Your task to perform on an android device: change timer sound Image 0: 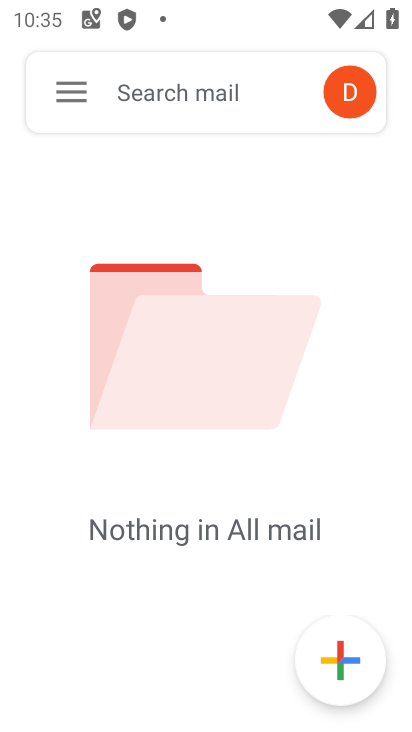
Step 0: press home button
Your task to perform on an android device: change timer sound Image 1: 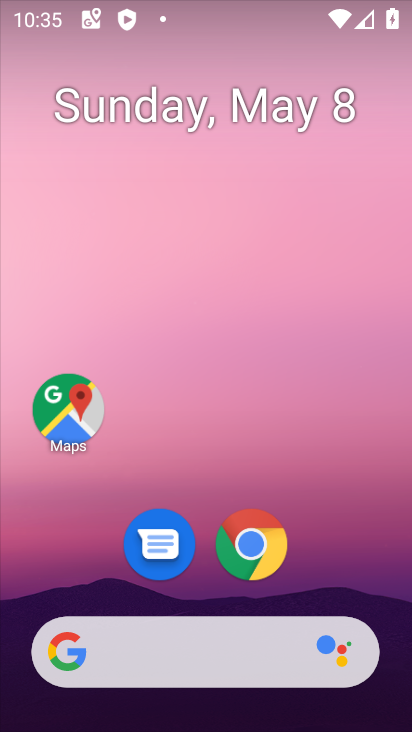
Step 1: drag from (355, 554) to (269, 35)
Your task to perform on an android device: change timer sound Image 2: 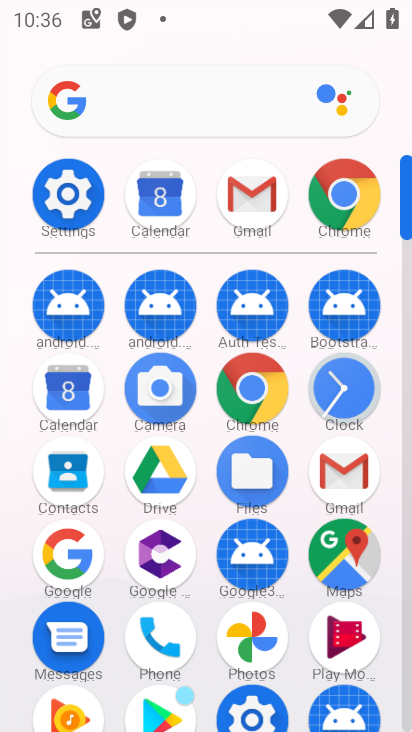
Step 2: click (356, 394)
Your task to perform on an android device: change timer sound Image 3: 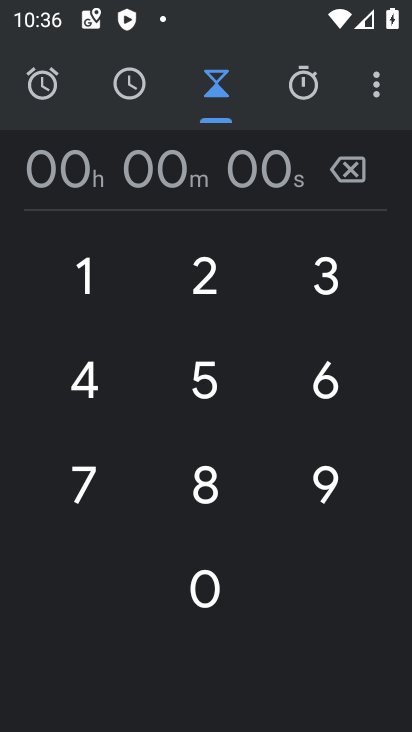
Step 3: click (385, 90)
Your task to perform on an android device: change timer sound Image 4: 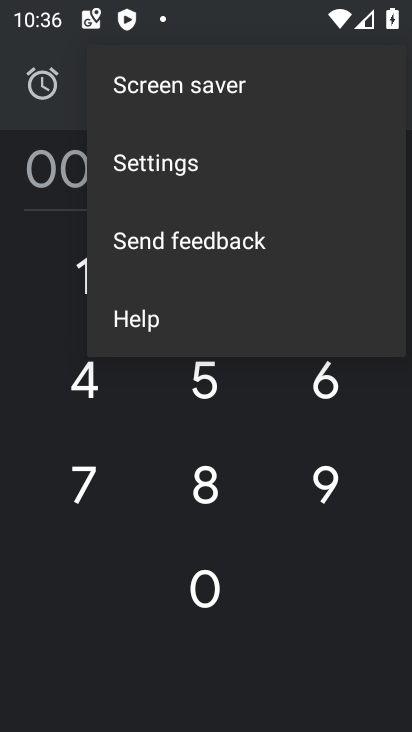
Step 4: click (288, 156)
Your task to perform on an android device: change timer sound Image 5: 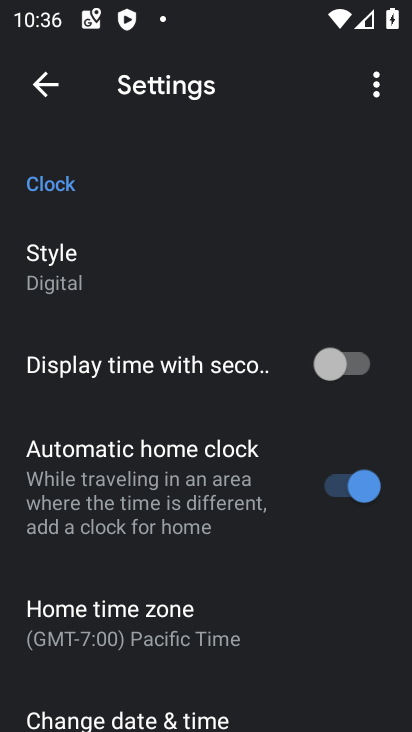
Step 5: drag from (119, 584) to (196, 142)
Your task to perform on an android device: change timer sound Image 6: 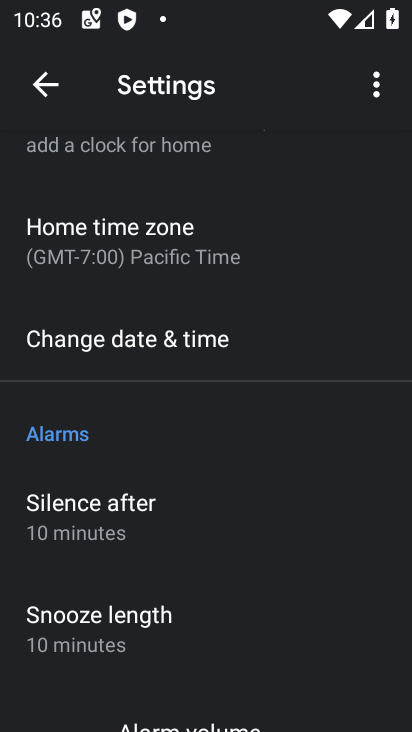
Step 6: drag from (82, 581) to (108, 375)
Your task to perform on an android device: change timer sound Image 7: 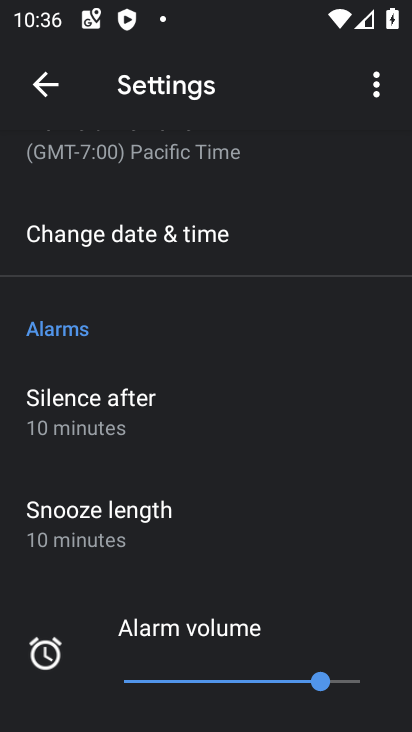
Step 7: drag from (90, 539) to (106, 320)
Your task to perform on an android device: change timer sound Image 8: 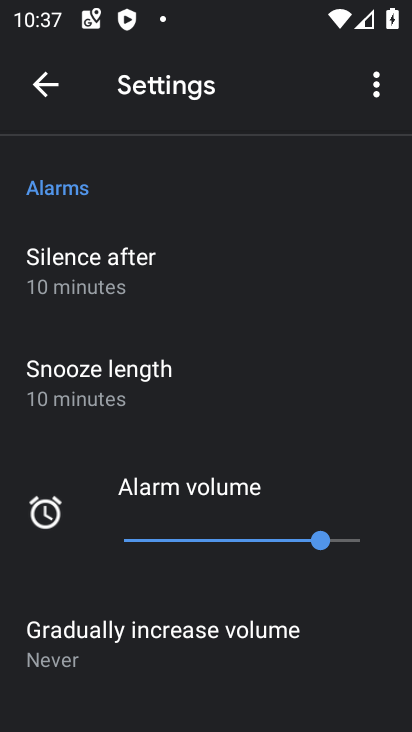
Step 8: drag from (82, 479) to (80, 380)
Your task to perform on an android device: change timer sound Image 9: 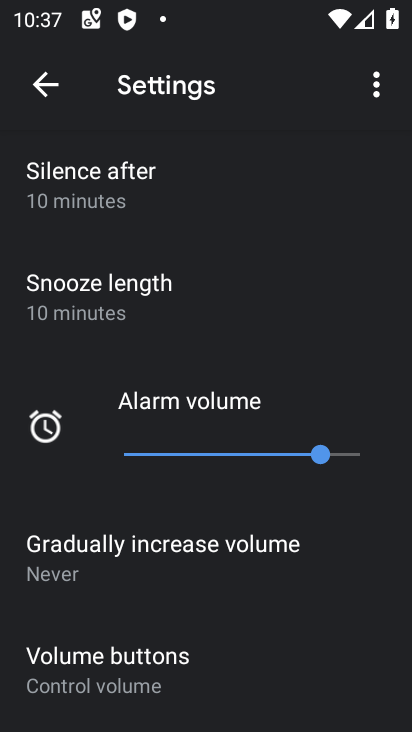
Step 9: drag from (120, 515) to (107, 363)
Your task to perform on an android device: change timer sound Image 10: 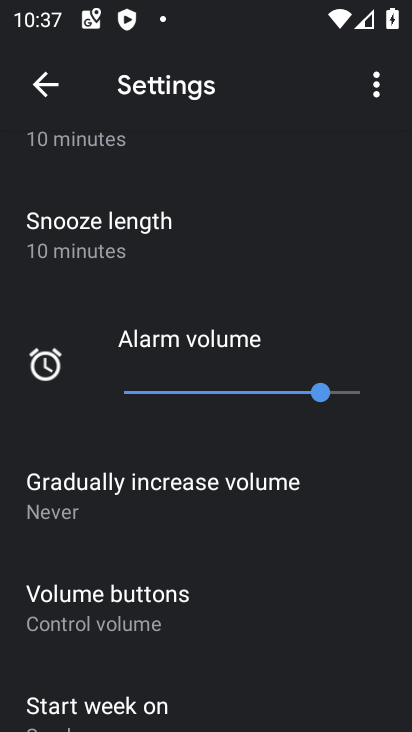
Step 10: drag from (116, 474) to (115, 403)
Your task to perform on an android device: change timer sound Image 11: 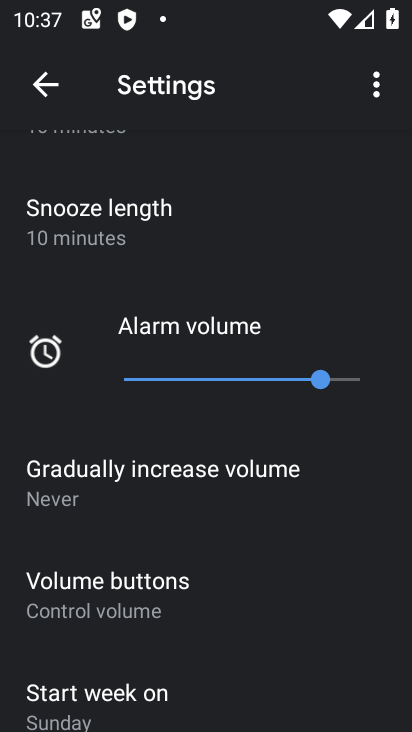
Step 11: drag from (112, 464) to (114, 389)
Your task to perform on an android device: change timer sound Image 12: 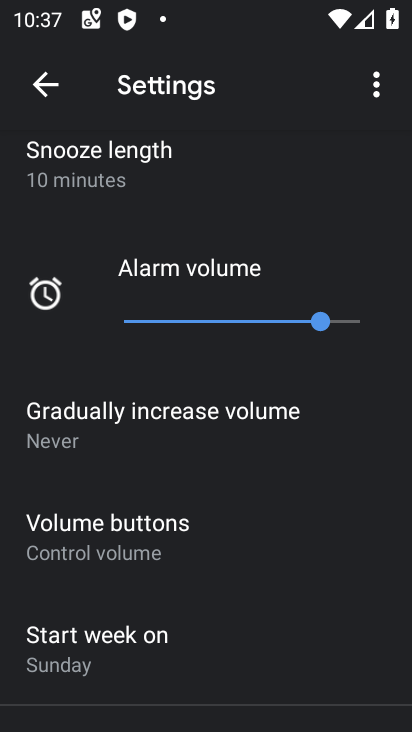
Step 12: drag from (57, 556) to (82, 413)
Your task to perform on an android device: change timer sound Image 13: 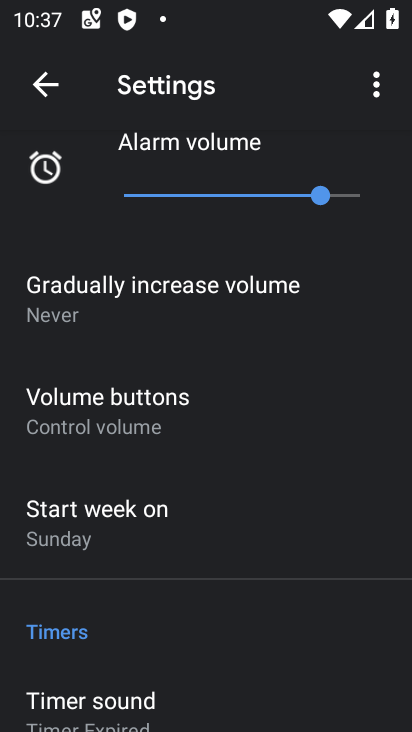
Step 13: drag from (99, 552) to (133, 379)
Your task to perform on an android device: change timer sound Image 14: 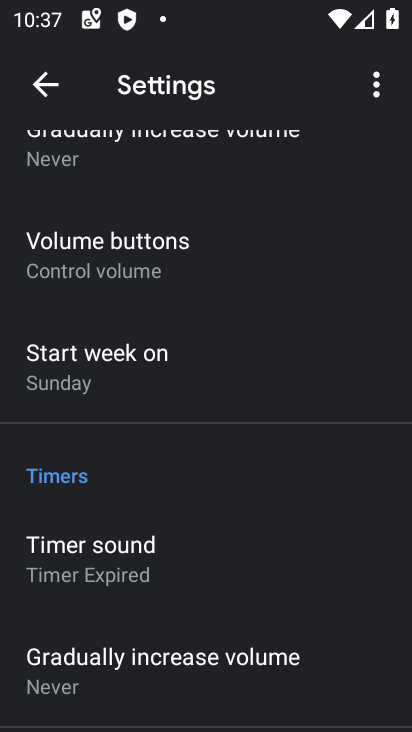
Step 14: drag from (155, 544) to (162, 415)
Your task to perform on an android device: change timer sound Image 15: 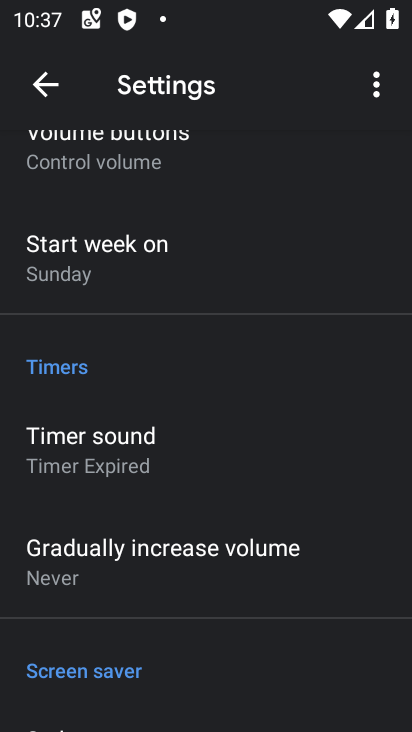
Step 15: click (169, 437)
Your task to perform on an android device: change timer sound Image 16: 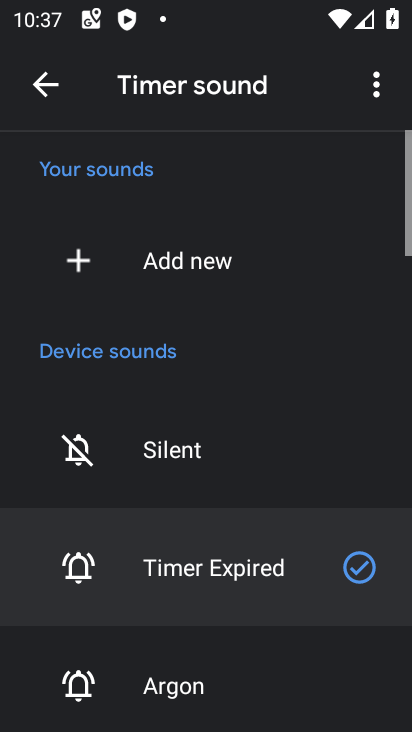
Step 16: click (164, 467)
Your task to perform on an android device: change timer sound Image 17: 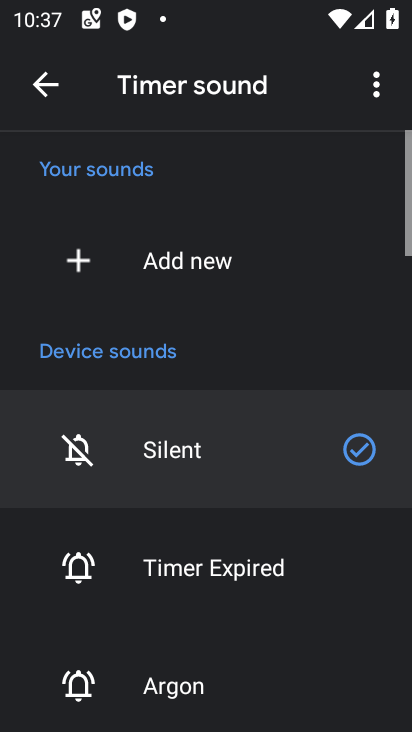
Step 17: task complete